Your task to perform on an android device: turn off notifications in google photos Image 0: 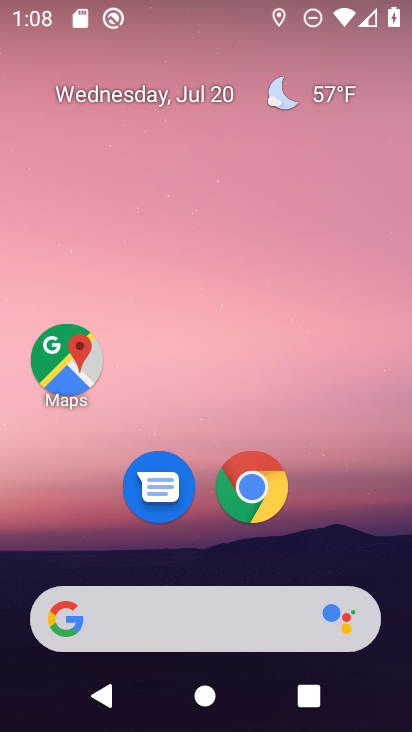
Step 0: drag from (350, 524) to (360, 97)
Your task to perform on an android device: turn off notifications in google photos Image 1: 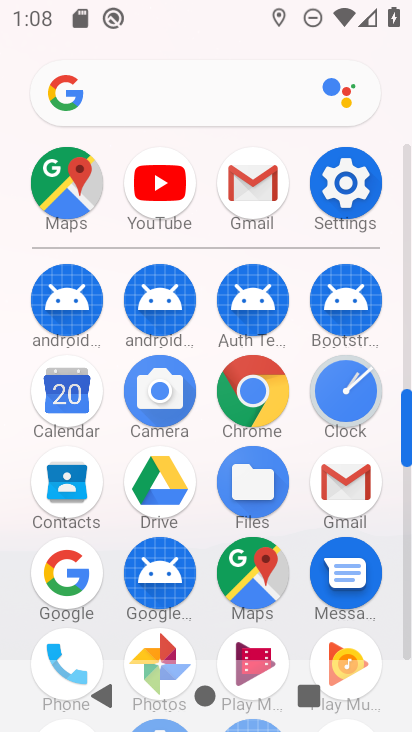
Step 1: click (156, 659)
Your task to perform on an android device: turn off notifications in google photos Image 2: 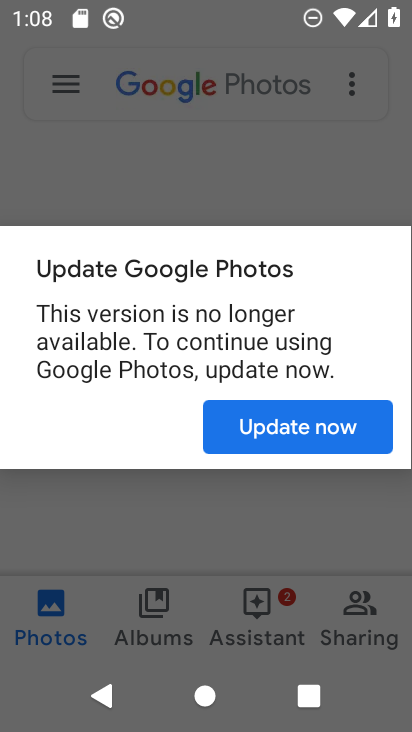
Step 2: click (335, 438)
Your task to perform on an android device: turn off notifications in google photos Image 3: 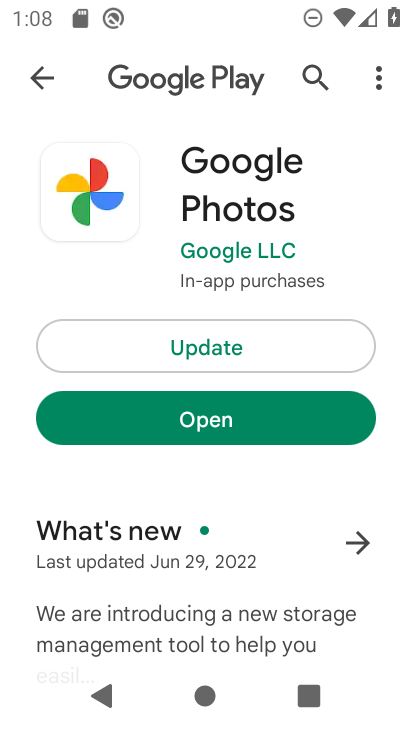
Step 3: click (320, 354)
Your task to perform on an android device: turn off notifications in google photos Image 4: 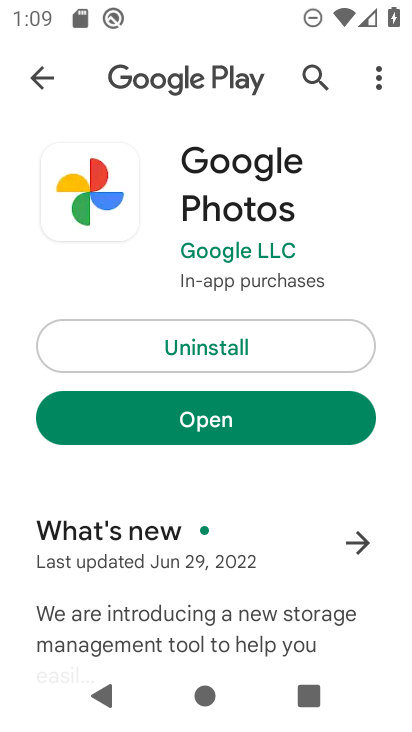
Step 4: click (331, 420)
Your task to perform on an android device: turn off notifications in google photos Image 5: 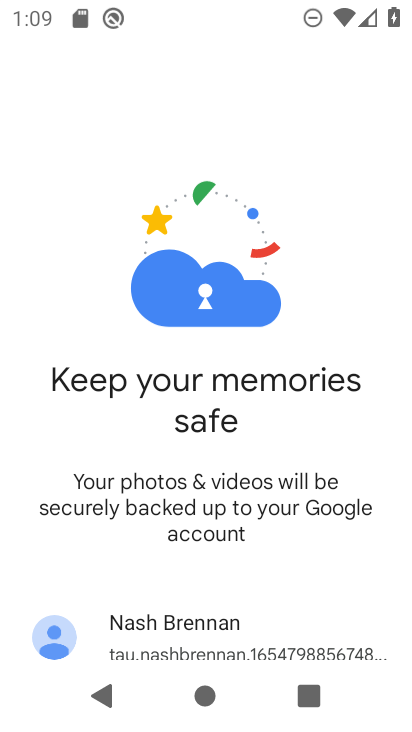
Step 5: drag from (266, 561) to (303, 282)
Your task to perform on an android device: turn off notifications in google photos Image 6: 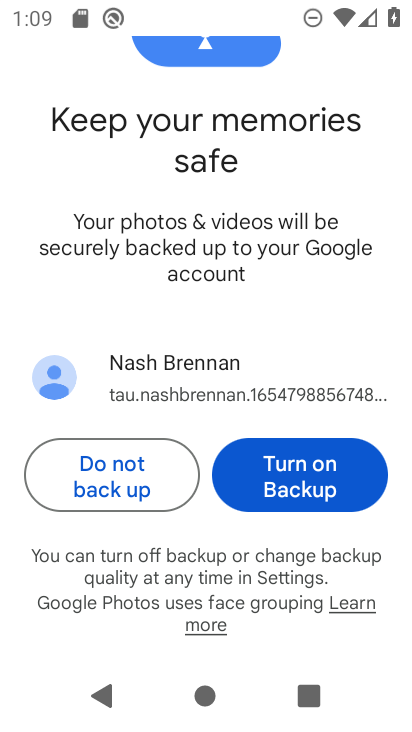
Step 6: click (309, 491)
Your task to perform on an android device: turn off notifications in google photos Image 7: 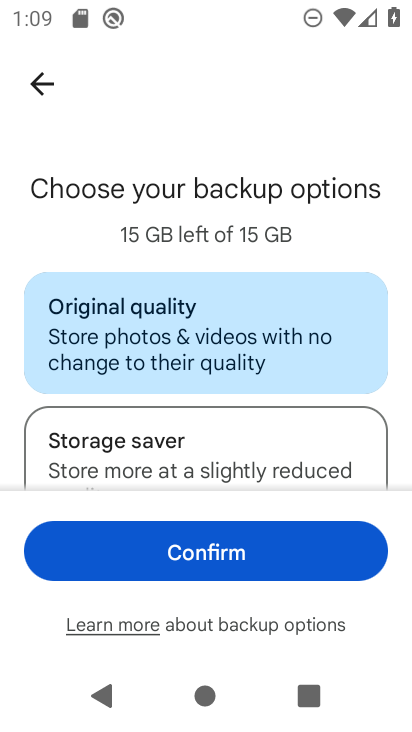
Step 7: click (269, 566)
Your task to perform on an android device: turn off notifications in google photos Image 8: 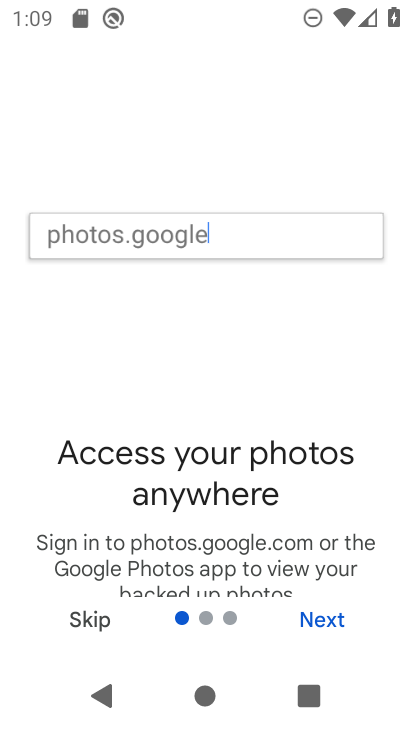
Step 8: click (339, 608)
Your task to perform on an android device: turn off notifications in google photos Image 9: 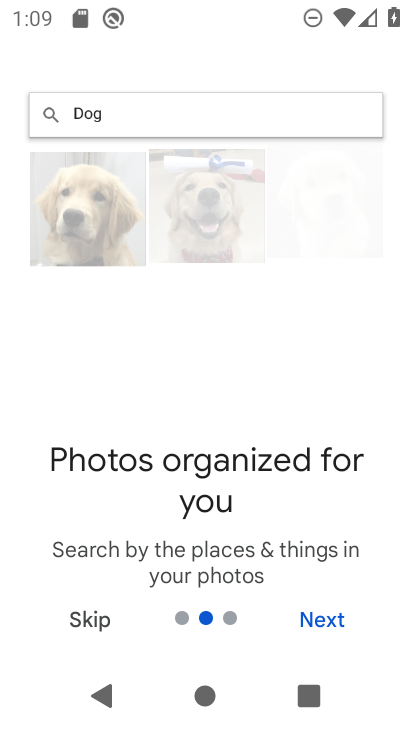
Step 9: click (313, 610)
Your task to perform on an android device: turn off notifications in google photos Image 10: 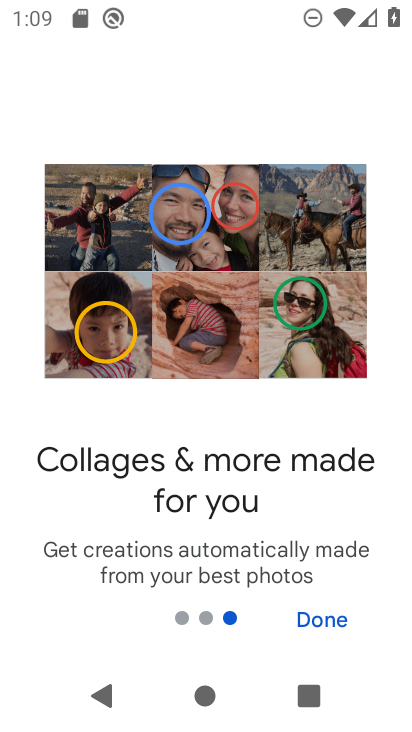
Step 10: click (302, 623)
Your task to perform on an android device: turn off notifications in google photos Image 11: 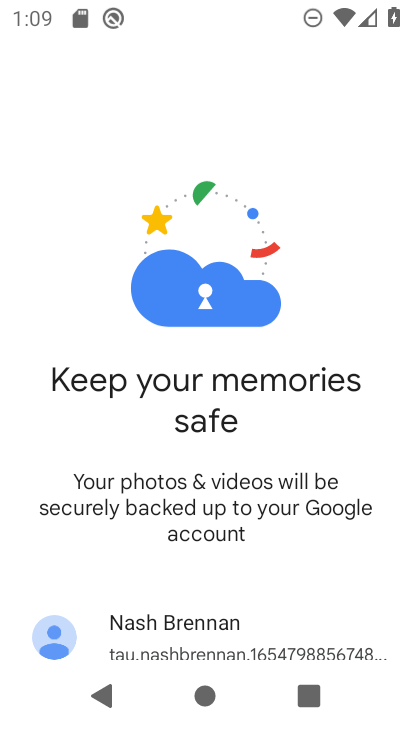
Step 11: drag from (291, 569) to (302, 257)
Your task to perform on an android device: turn off notifications in google photos Image 12: 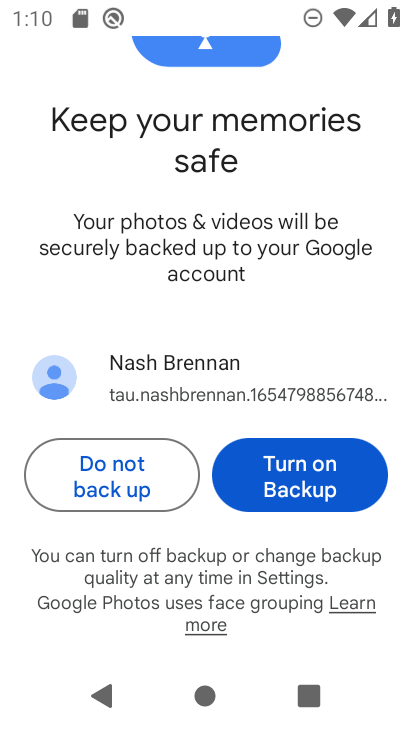
Step 12: click (139, 498)
Your task to perform on an android device: turn off notifications in google photos Image 13: 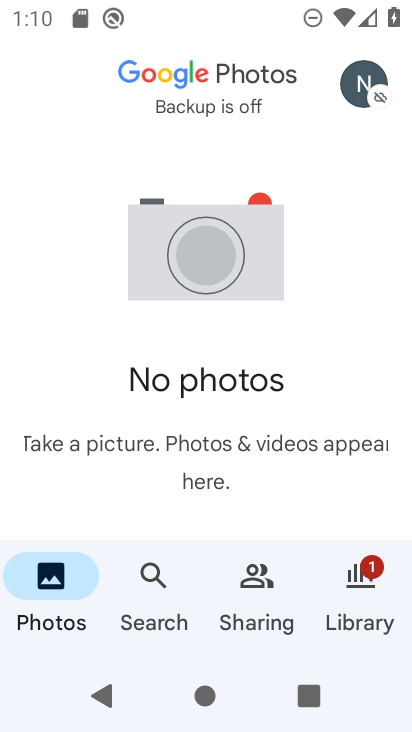
Step 13: click (359, 82)
Your task to perform on an android device: turn off notifications in google photos Image 14: 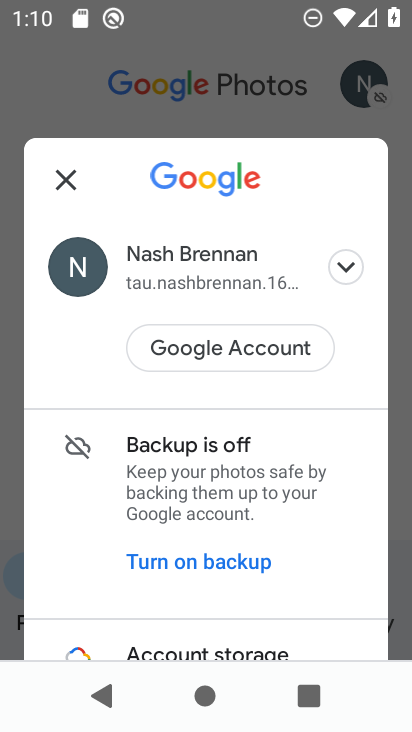
Step 14: drag from (295, 557) to (304, 302)
Your task to perform on an android device: turn off notifications in google photos Image 15: 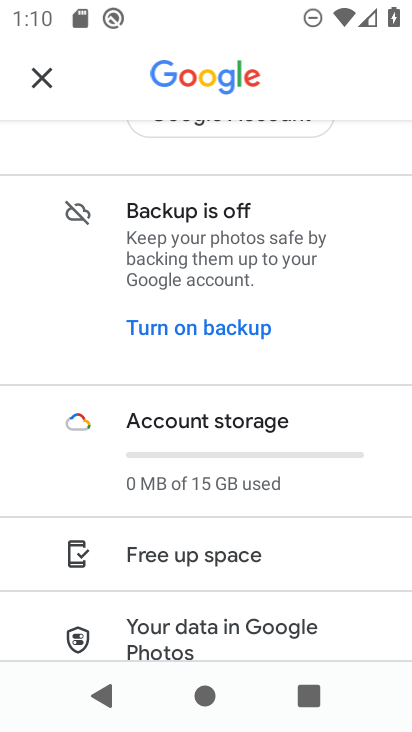
Step 15: drag from (347, 570) to (348, 330)
Your task to perform on an android device: turn off notifications in google photos Image 16: 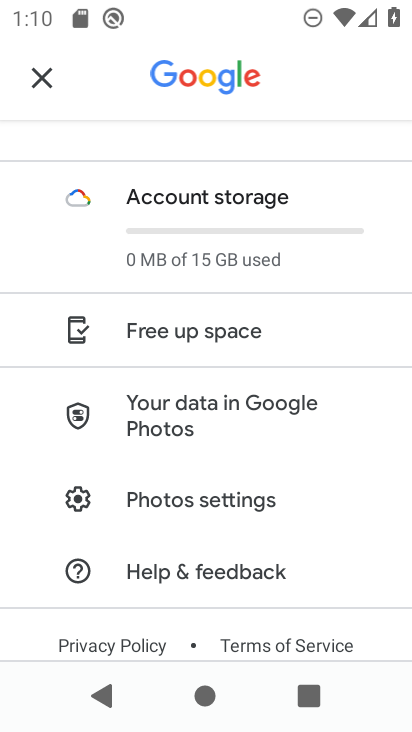
Step 16: click (319, 524)
Your task to perform on an android device: turn off notifications in google photos Image 17: 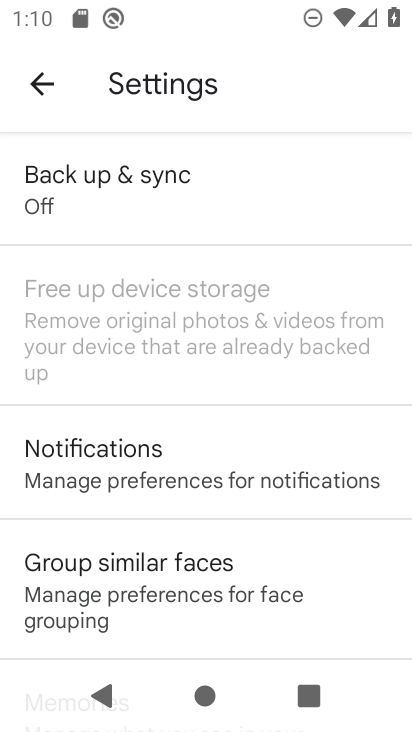
Step 17: click (237, 473)
Your task to perform on an android device: turn off notifications in google photos Image 18: 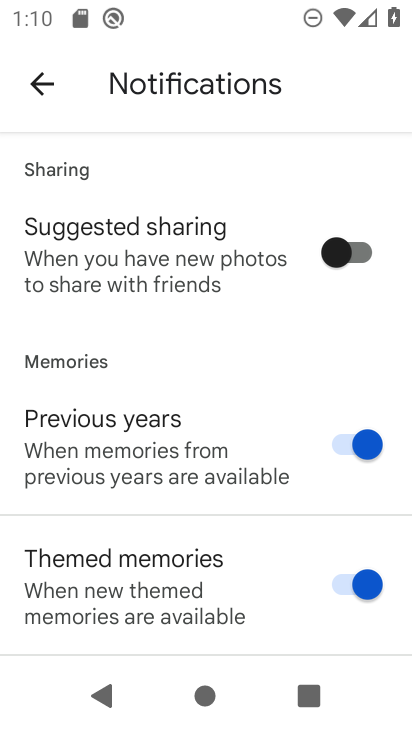
Step 18: drag from (244, 553) to (274, 332)
Your task to perform on an android device: turn off notifications in google photos Image 19: 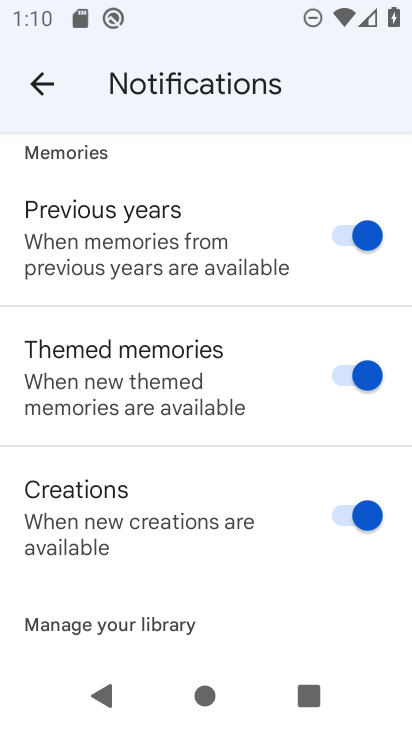
Step 19: drag from (293, 584) to (304, 422)
Your task to perform on an android device: turn off notifications in google photos Image 20: 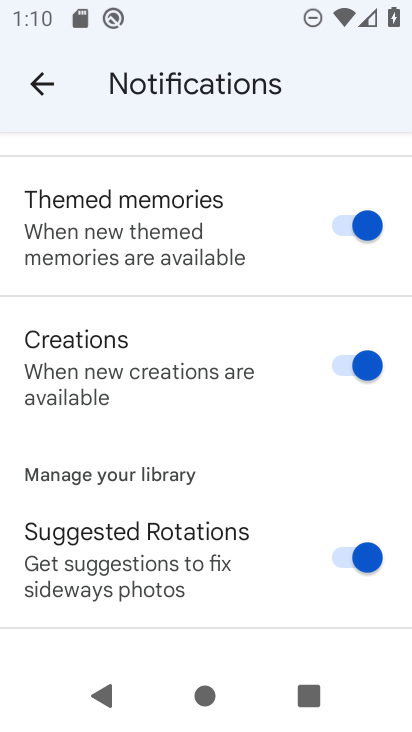
Step 20: drag from (283, 540) to (283, 406)
Your task to perform on an android device: turn off notifications in google photos Image 21: 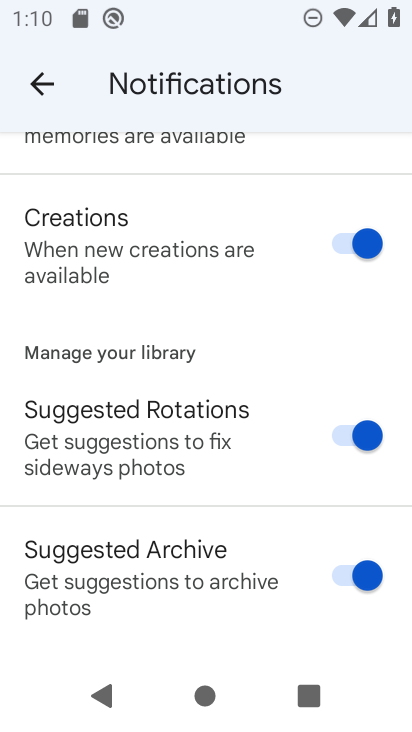
Step 21: drag from (268, 564) to (275, 425)
Your task to perform on an android device: turn off notifications in google photos Image 22: 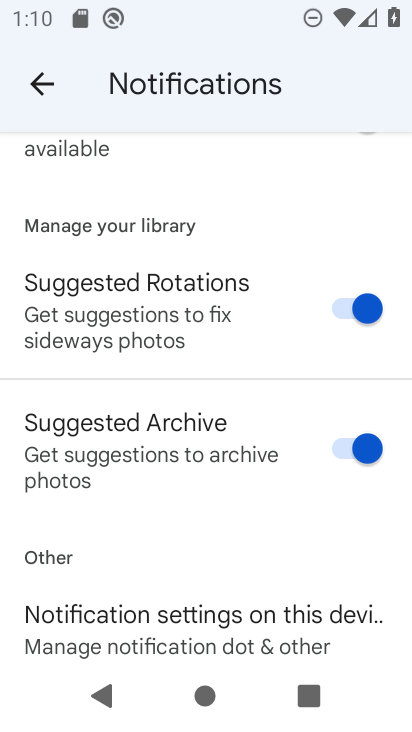
Step 22: drag from (278, 559) to (280, 393)
Your task to perform on an android device: turn off notifications in google photos Image 23: 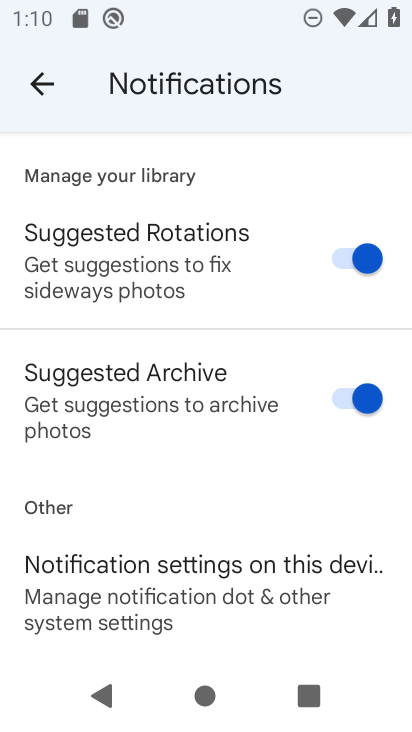
Step 23: click (279, 567)
Your task to perform on an android device: turn off notifications in google photos Image 24: 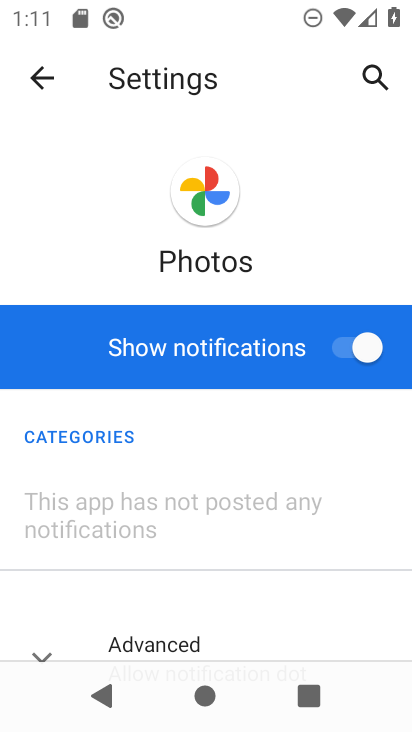
Step 24: click (349, 352)
Your task to perform on an android device: turn off notifications in google photos Image 25: 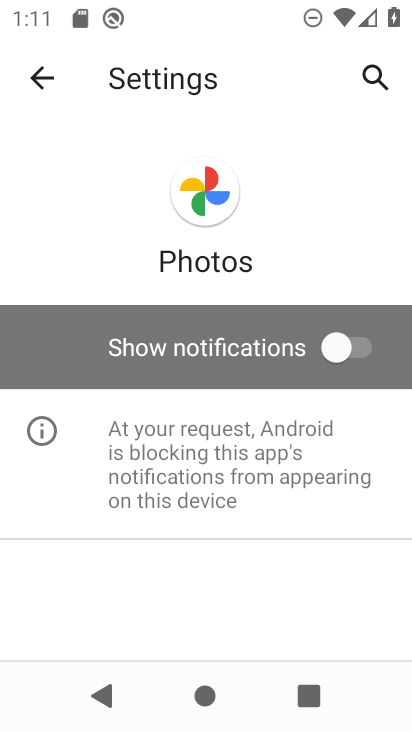
Step 25: task complete